Your task to perform on an android device: Is it going to rain tomorrow? Image 0: 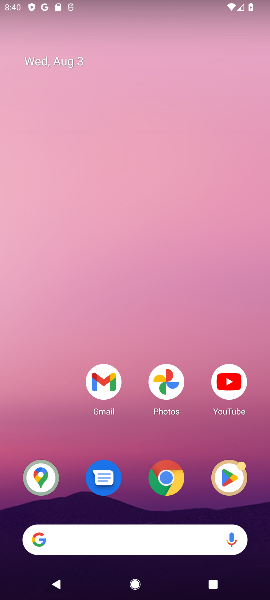
Step 0: drag from (260, 443) to (183, 190)
Your task to perform on an android device: Is it going to rain tomorrow? Image 1: 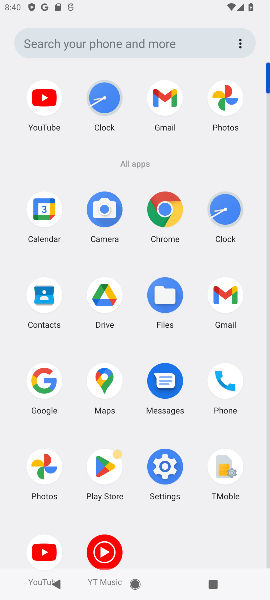
Step 1: click (156, 233)
Your task to perform on an android device: Is it going to rain tomorrow? Image 2: 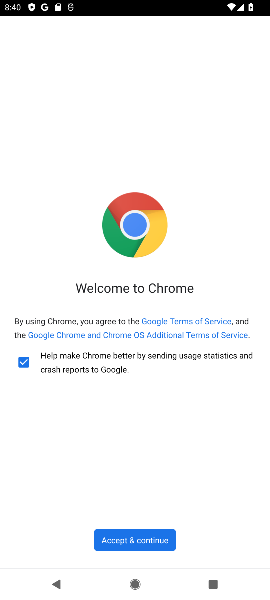
Step 2: click (164, 538)
Your task to perform on an android device: Is it going to rain tomorrow? Image 3: 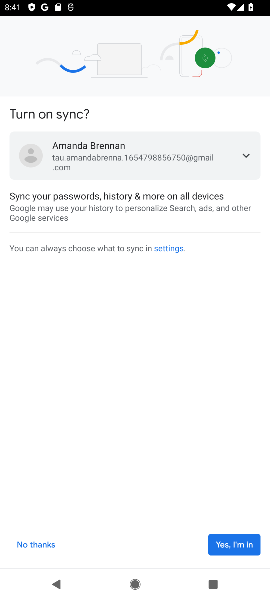
Step 3: click (235, 553)
Your task to perform on an android device: Is it going to rain tomorrow? Image 4: 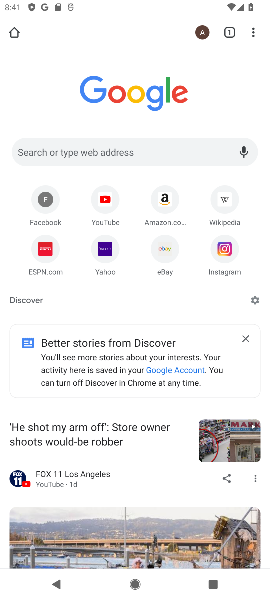
Step 4: click (26, 162)
Your task to perform on an android device: Is it going to rain tomorrow? Image 5: 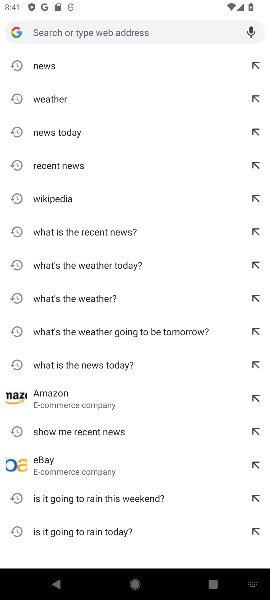
Step 5: type "Is it going to rain tomorrow?"
Your task to perform on an android device: Is it going to rain tomorrow? Image 6: 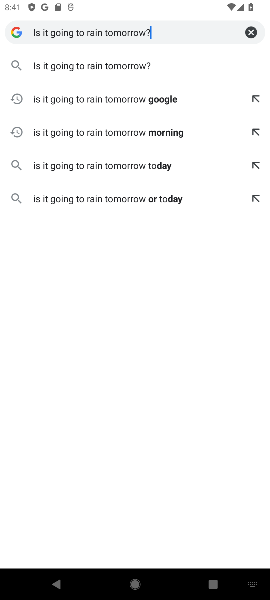
Step 6: click (114, 61)
Your task to perform on an android device: Is it going to rain tomorrow? Image 7: 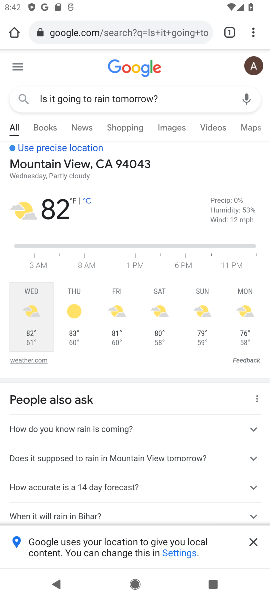
Step 7: task complete